Your task to perform on an android device: move an email to a new category in the gmail app Image 0: 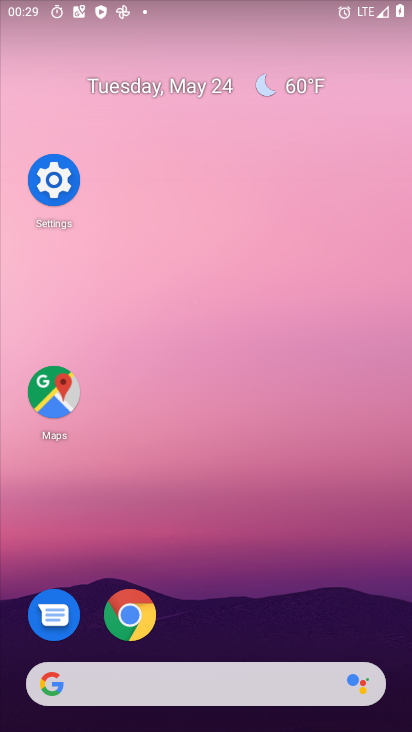
Step 0: drag from (249, 607) to (208, 78)
Your task to perform on an android device: move an email to a new category in the gmail app Image 1: 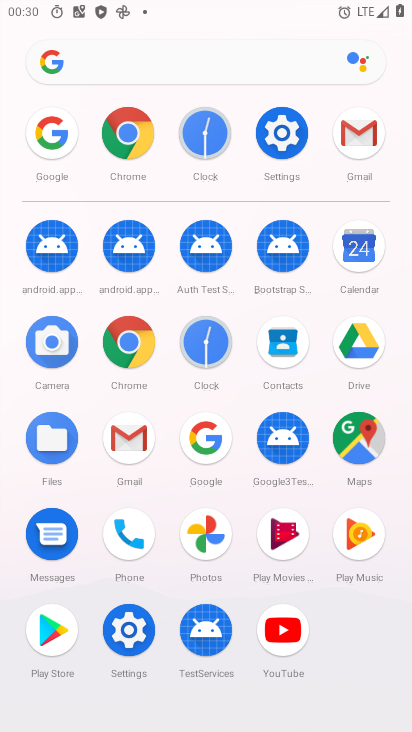
Step 1: click (126, 441)
Your task to perform on an android device: move an email to a new category in the gmail app Image 2: 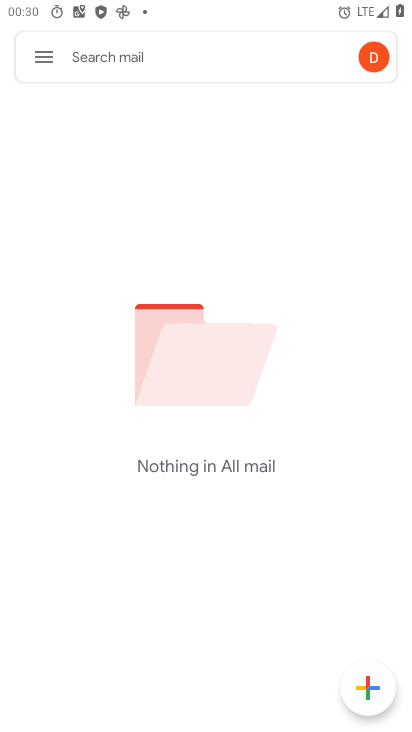
Step 2: click (40, 53)
Your task to perform on an android device: move an email to a new category in the gmail app Image 3: 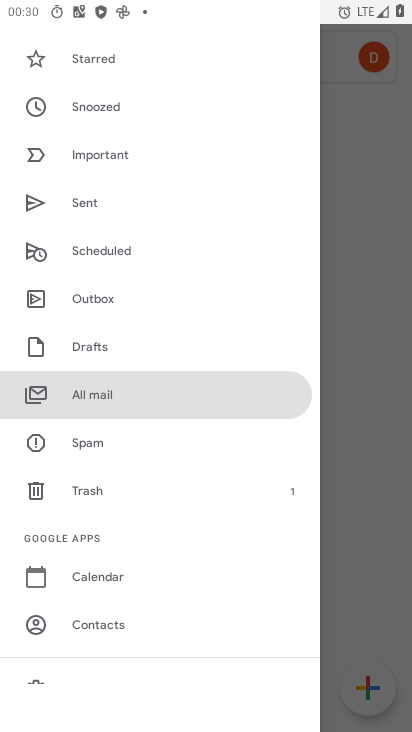
Step 3: click (349, 352)
Your task to perform on an android device: move an email to a new category in the gmail app Image 4: 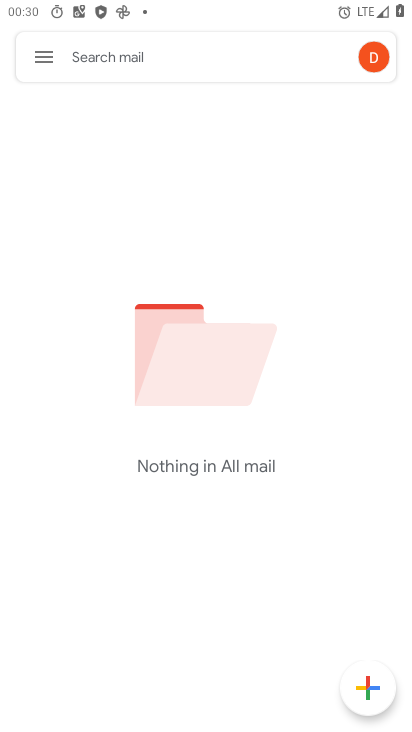
Step 4: task complete